Your task to perform on an android device: remove spam from my inbox in the gmail app Image 0: 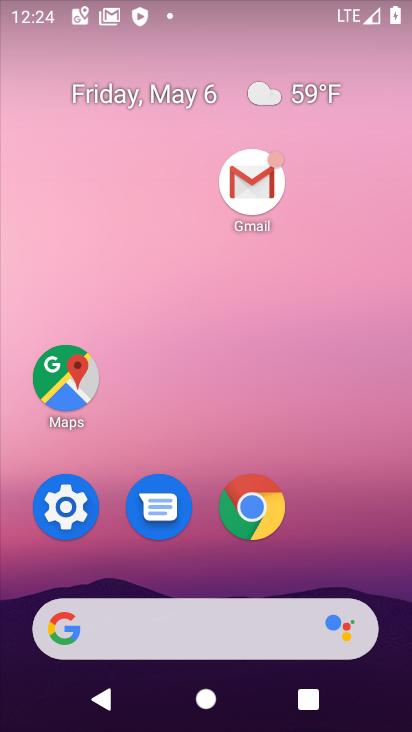
Step 0: click (260, 180)
Your task to perform on an android device: remove spam from my inbox in the gmail app Image 1: 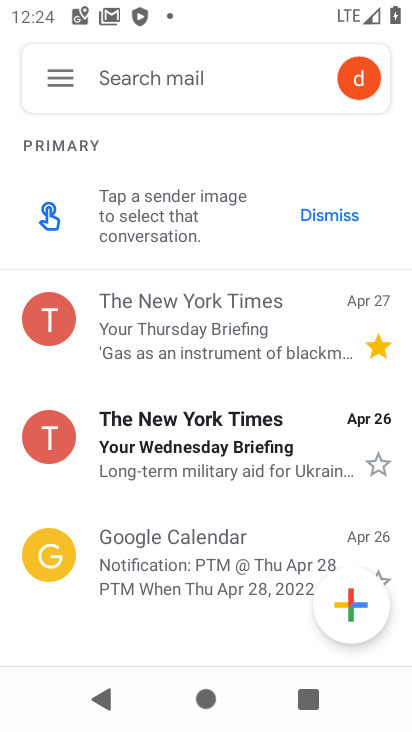
Step 1: click (57, 73)
Your task to perform on an android device: remove spam from my inbox in the gmail app Image 2: 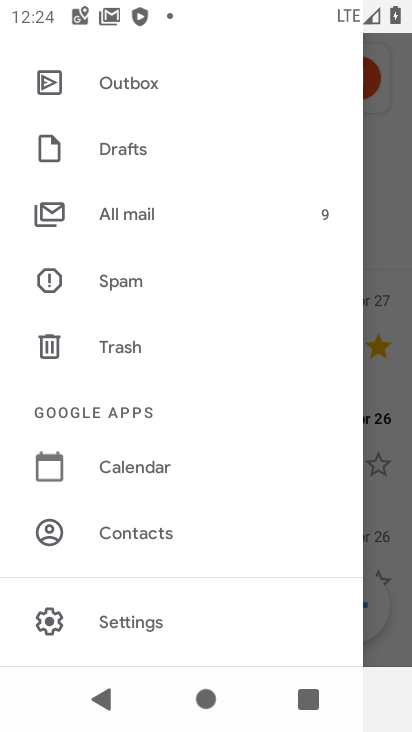
Step 2: click (137, 278)
Your task to perform on an android device: remove spam from my inbox in the gmail app Image 3: 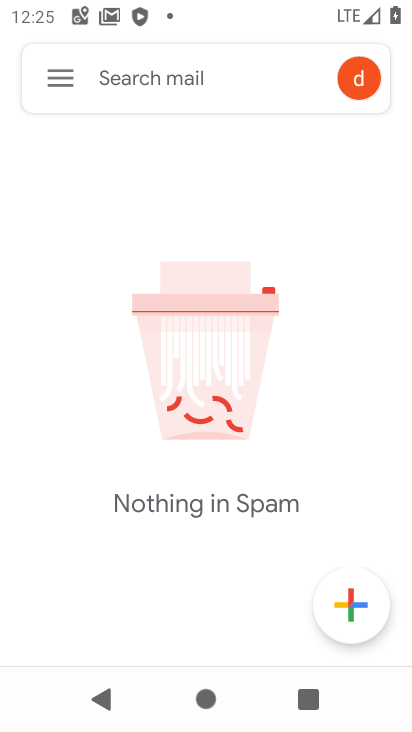
Step 3: task complete